Your task to perform on an android device: turn off location Image 0: 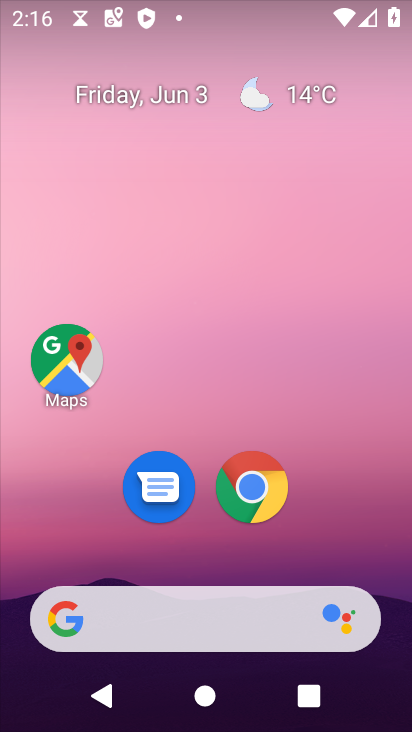
Step 0: drag from (302, 469) to (183, 0)
Your task to perform on an android device: turn off location Image 1: 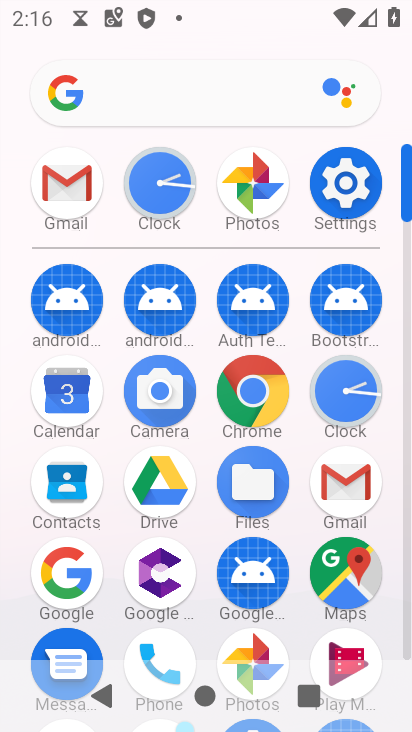
Step 1: click (336, 205)
Your task to perform on an android device: turn off location Image 2: 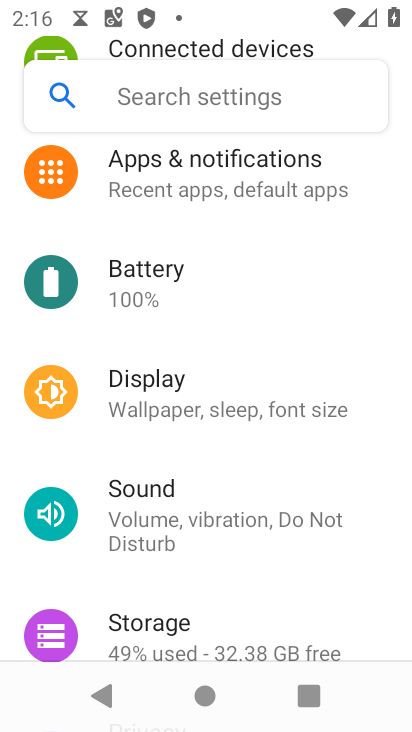
Step 2: drag from (243, 561) to (212, 90)
Your task to perform on an android device: turn off location Image 3: 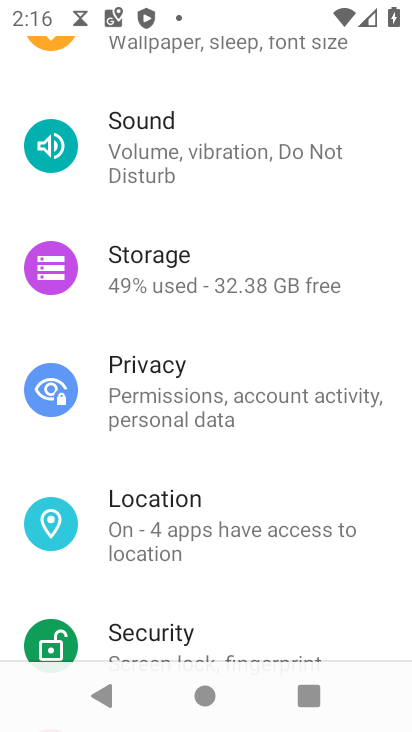
Step 3: click (199, 532)
Your task to perform on an android device: turn off location Image 4: 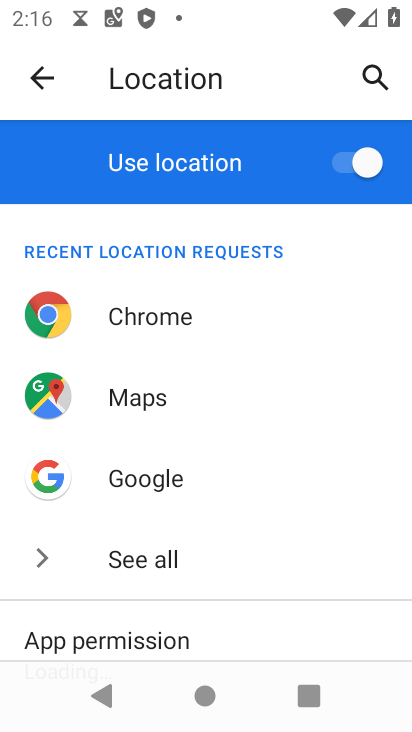
Step 4: click (347, 154)
Your task to perform on an android device: turn off location Image 5: 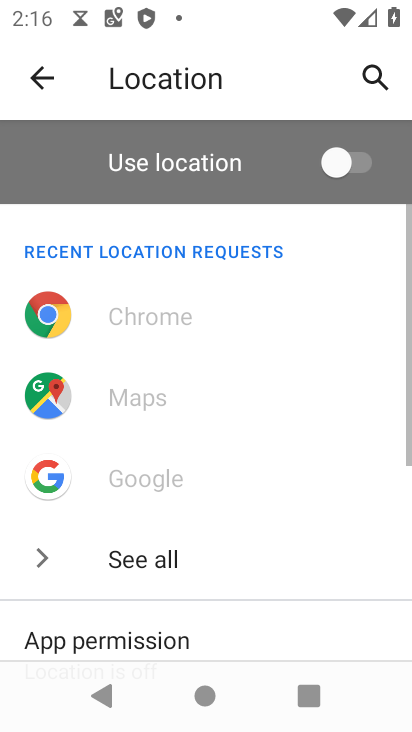
Step 5: task complete